Your task to perform on an android device: Open Google Maps Image 0: 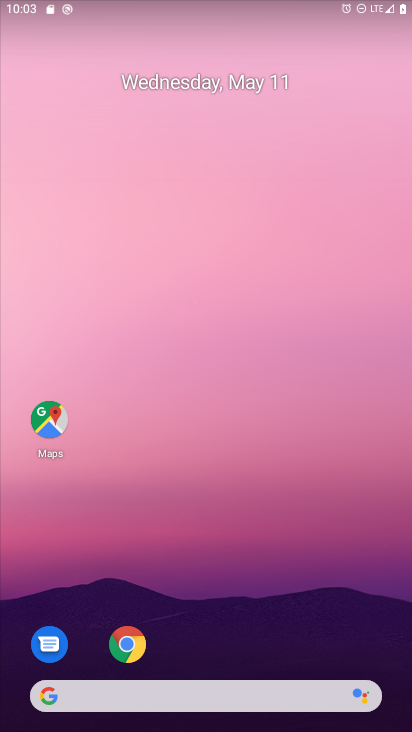
Step 0: click (49, 422)
Your task to perform on an android device: Open Google Maps Image 1: 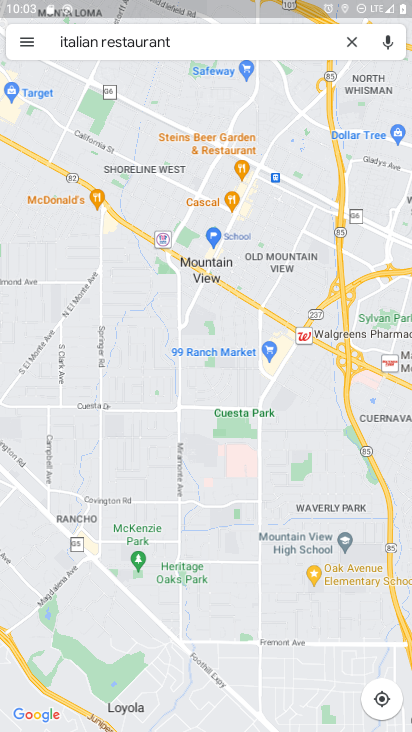
Step 1: task complete